Your task to perform on an android device: Go to display settings Image 0: 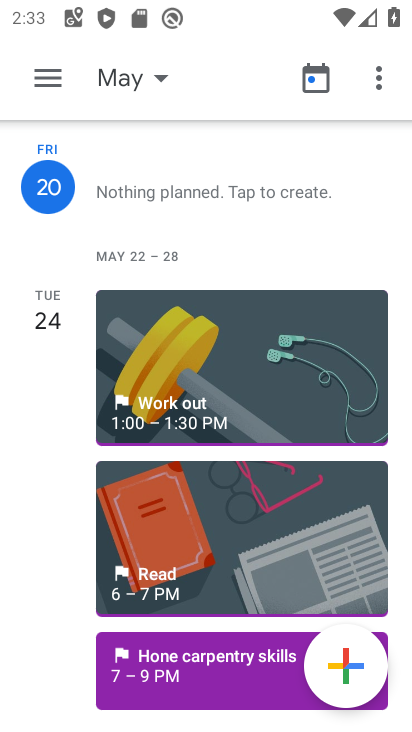
Step 0: press home button
Your task to perform on an android device: Go to display settings Image 1: 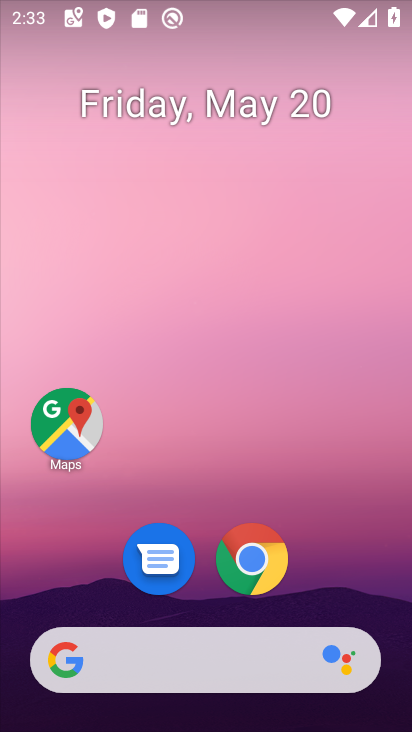
Step 1: drag from (264, 441) to (273, 88)
Your task to perform on an android device: Go to display settings Image 2: 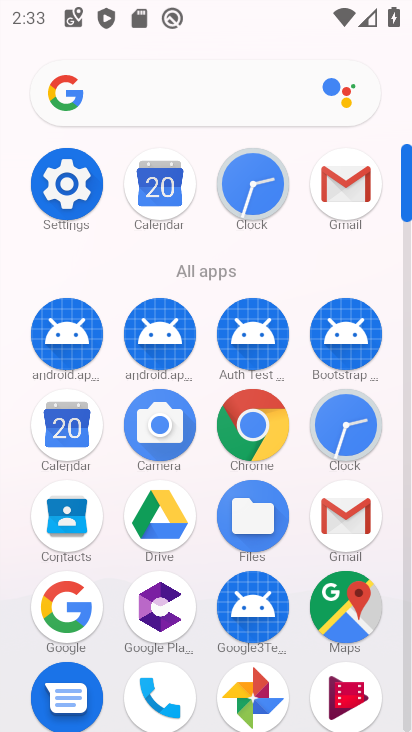
Step 2: click (93, 183)
Your task to perform on an android device: Go to display settings Image 3: 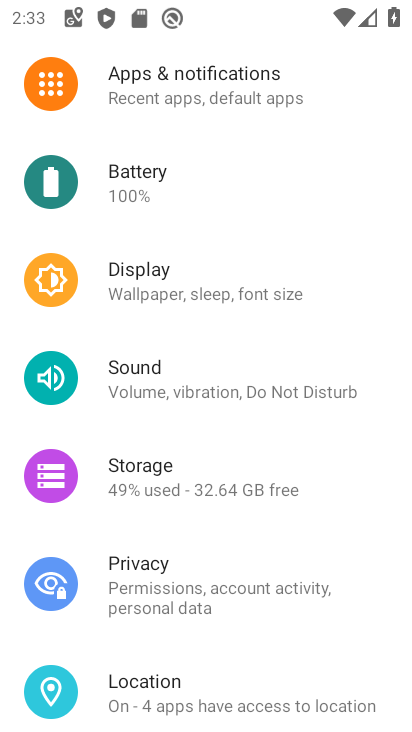
Step 3: click (213, 278)
Your task to perform on an android device: Go to display settings Image 4: 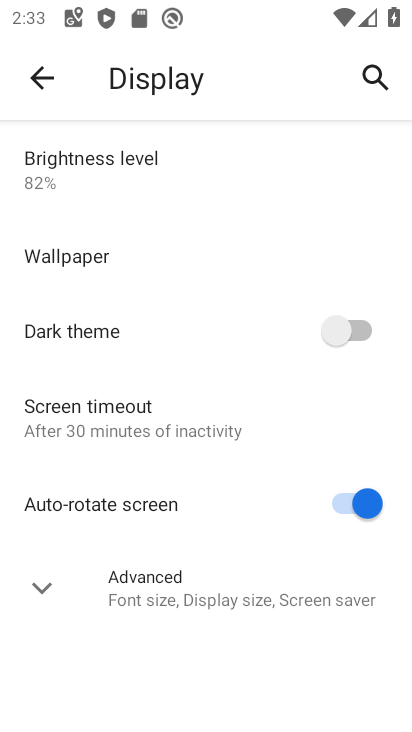
Step 4: task complete